Your task to perform on an android device: Open calendar and show me the fourth week of next month Image 0: 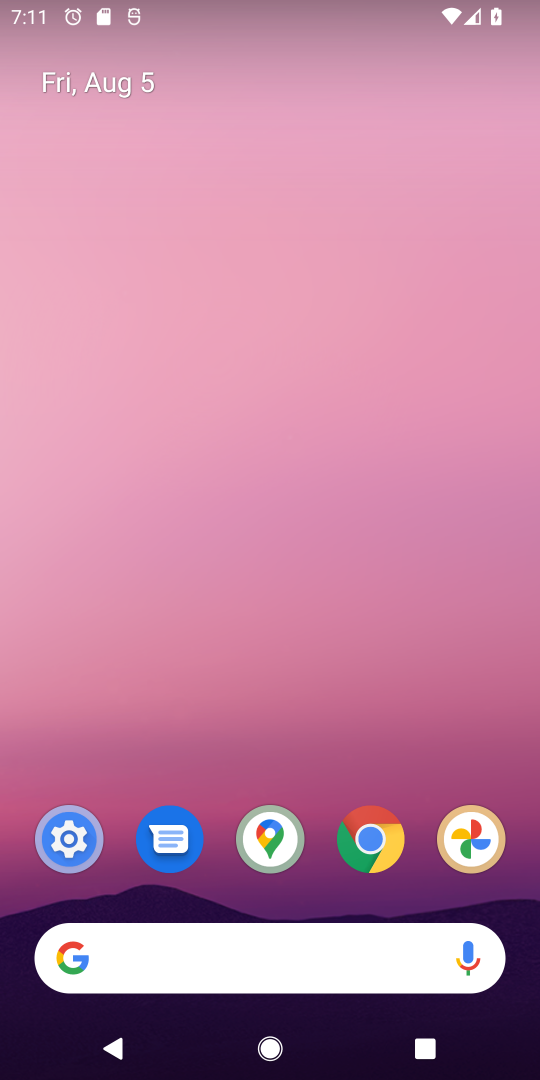
Step 0: drag from (243, 669) to (222, 233)
Your task to perform on an android device: Open calendar and show me the fourth week of next month Image 1: 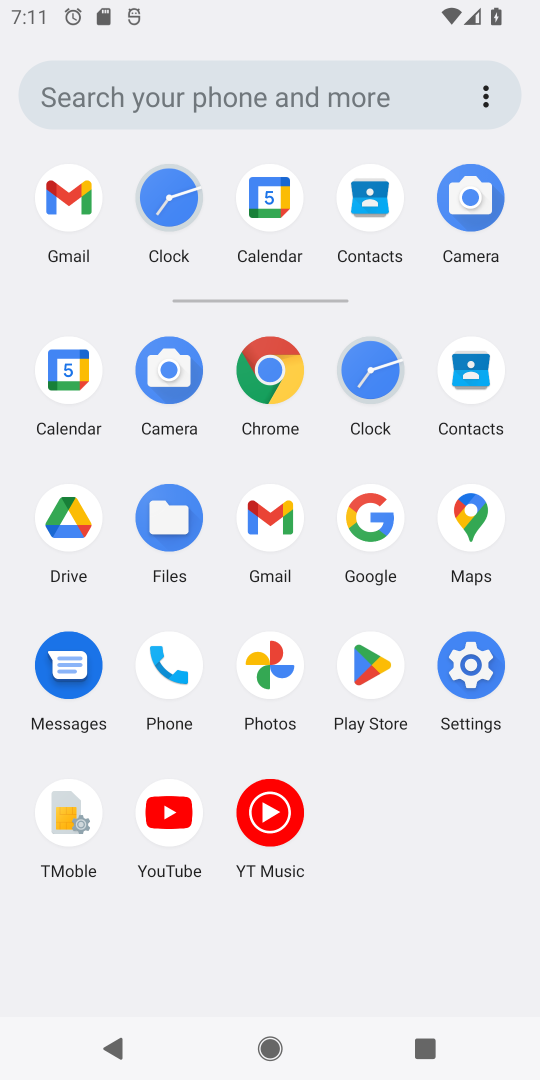
Step 1: click (277, 207)
Your task to perform on an android device: Open calendar and show me the fourth week of next month Image 2: 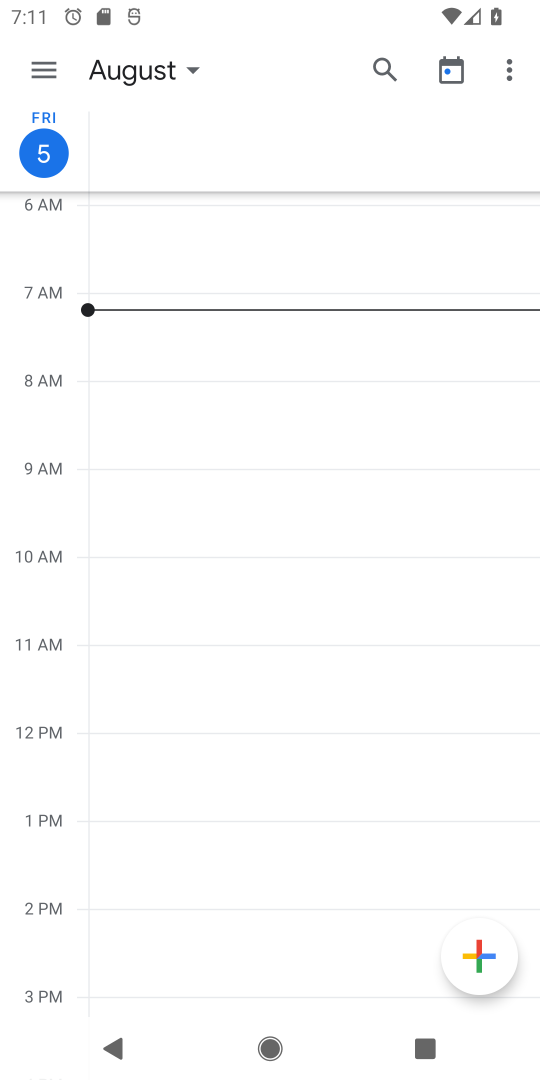
Step 2: click (188, 82)
Your task to perform on an android device: Open calendar and show me the fourth week of next month Image 3: 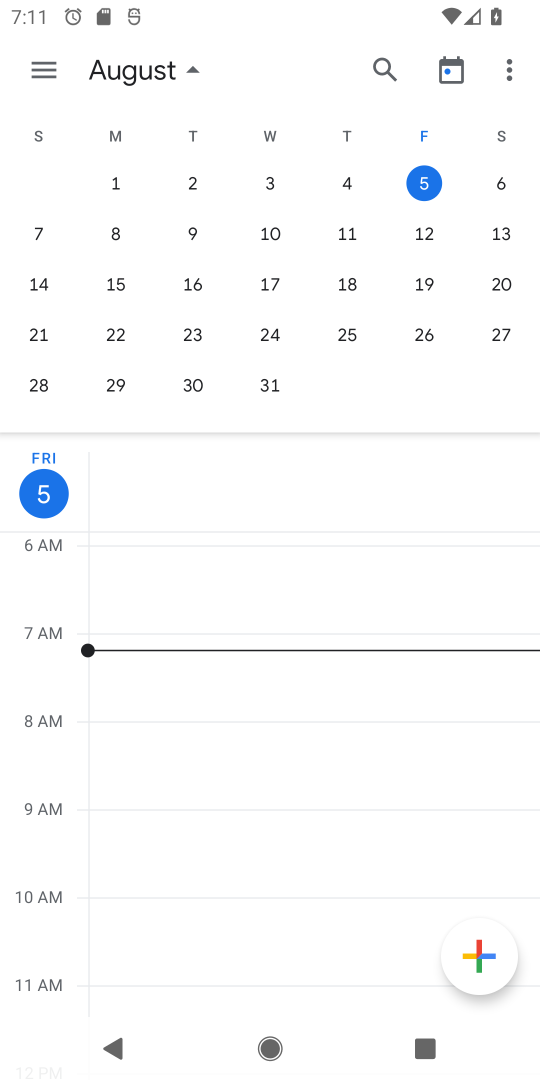
Step 3: drag from (466, 227) to (48, 201)
Your task to perform on an android device: Open calendar and show me the fourth week of next month Image 4: 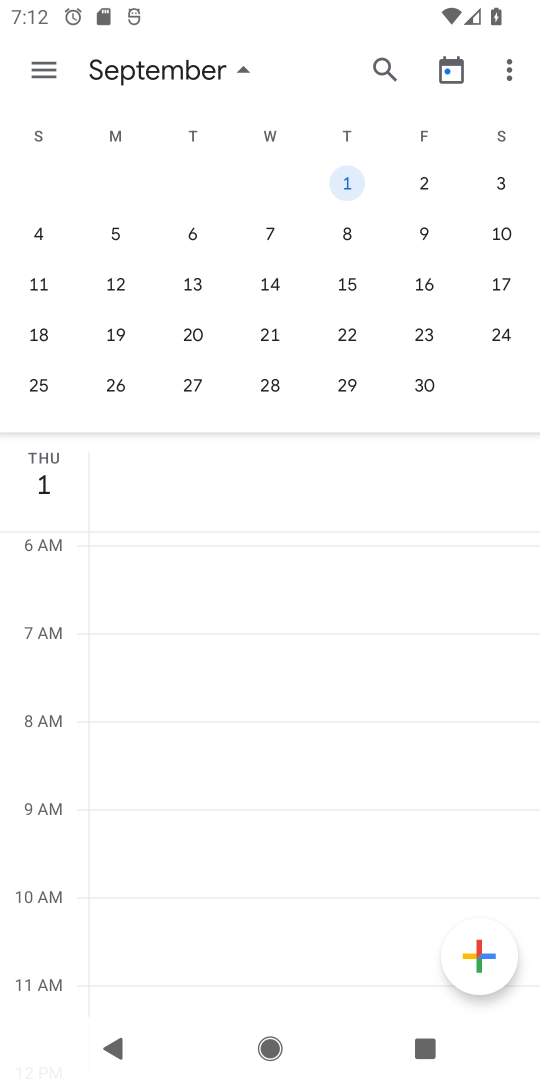
Step 4: click (17, 350)
Your task to perform on an android device: Open calendar and show me the fourth week of next month Image 5: 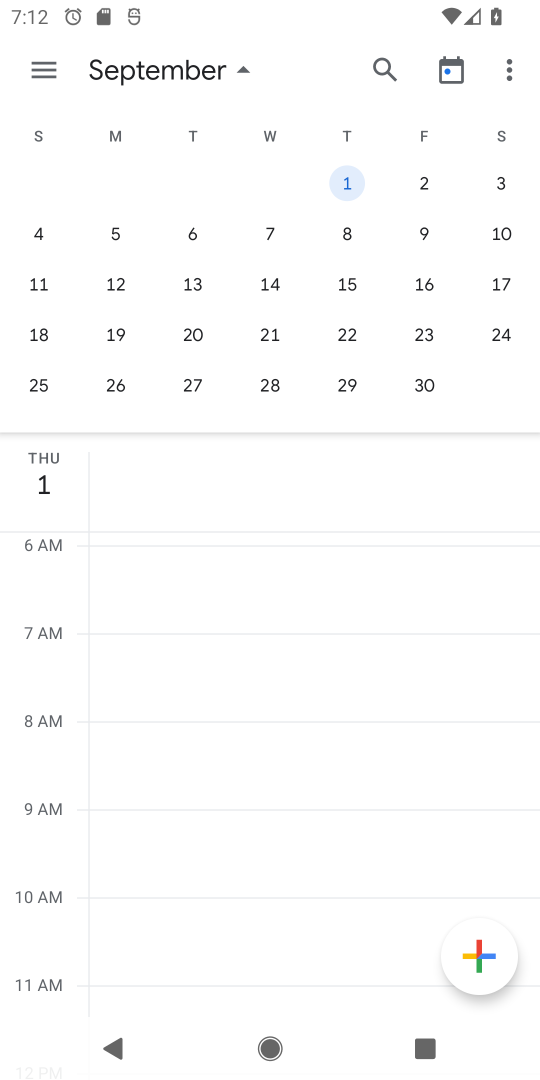
Step 5: click (40, 336)
Your task to perform on an android device: Open calendar and show me the fourth week of next month Image 6: 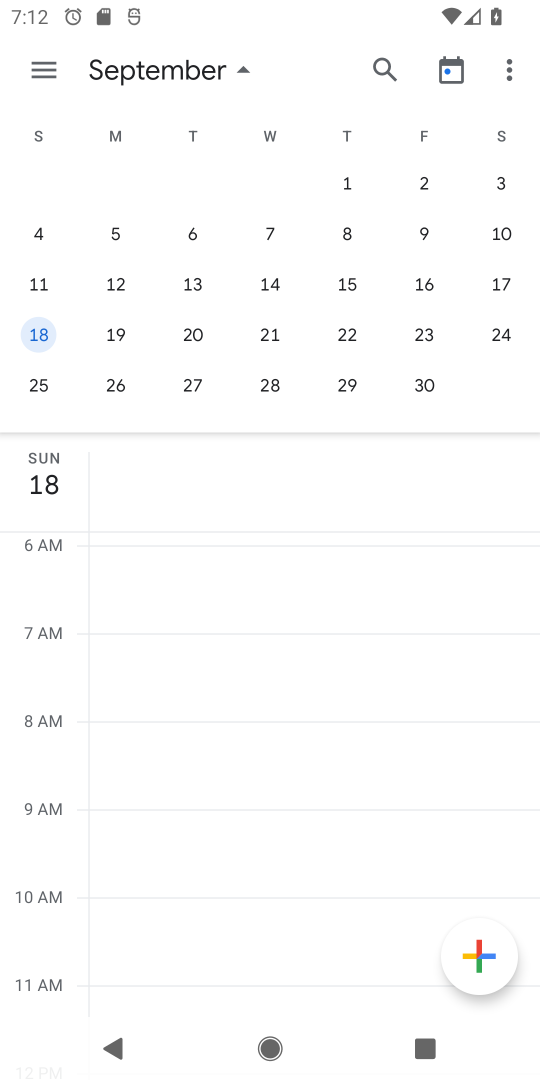
Step 6: task complete